Your task to perform on an android device: Open Wikipedia Image 0: 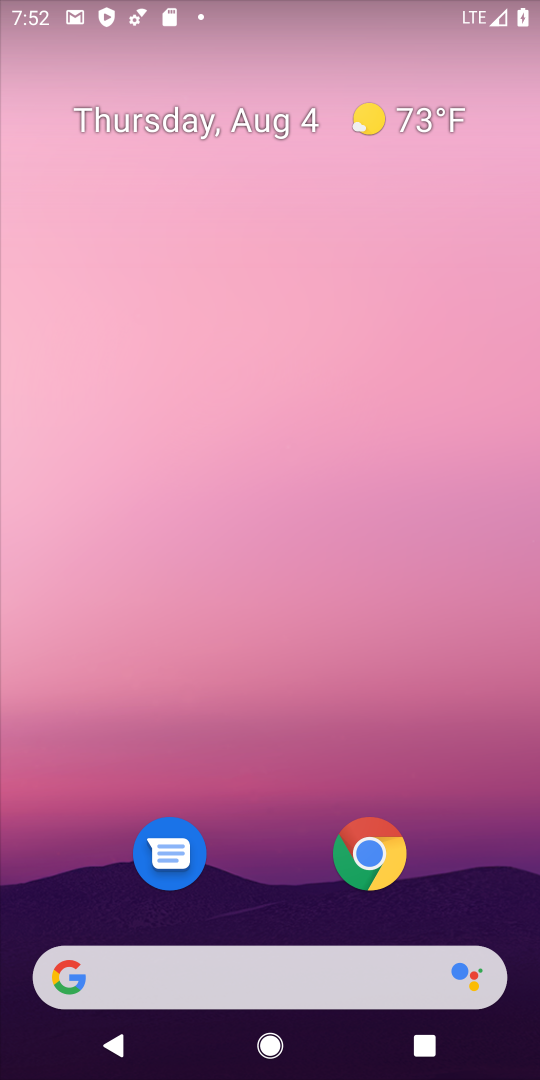
Step 0: click (373, 860)
Your task to perform on an android device: Open Wikipedia Image 1: 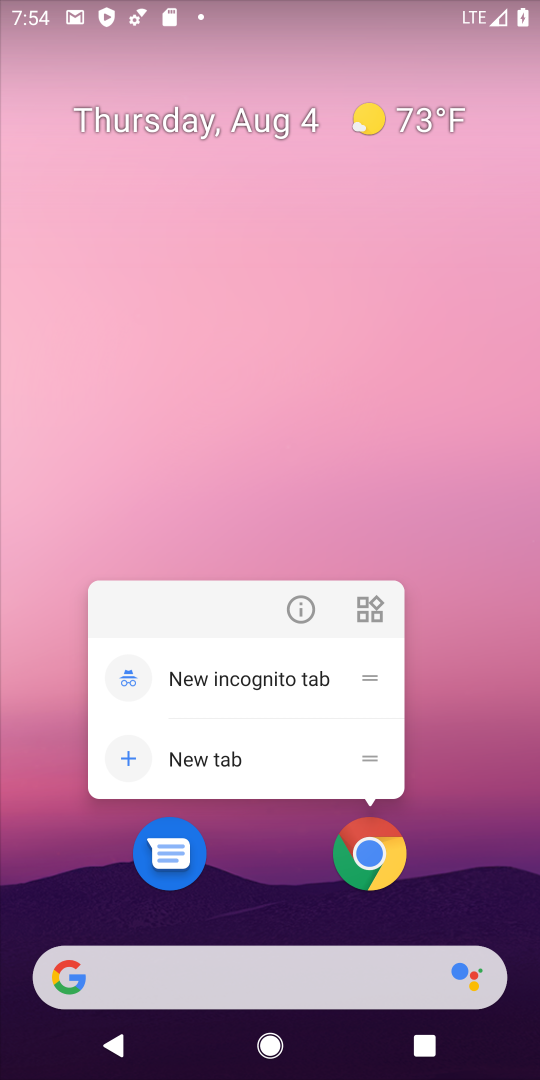
Step 1: click (363, 842)
Your task to perform on an android device: Open Wikipedia Image 2: 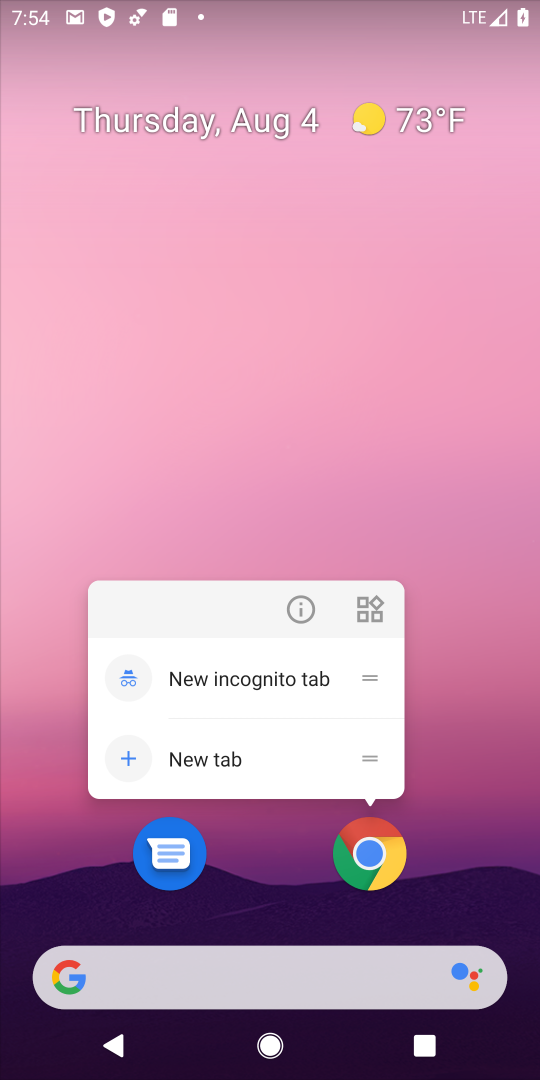
Step 2: click (375, 853)
Your task to perform on an android device: Open Wikipedia Image 3: 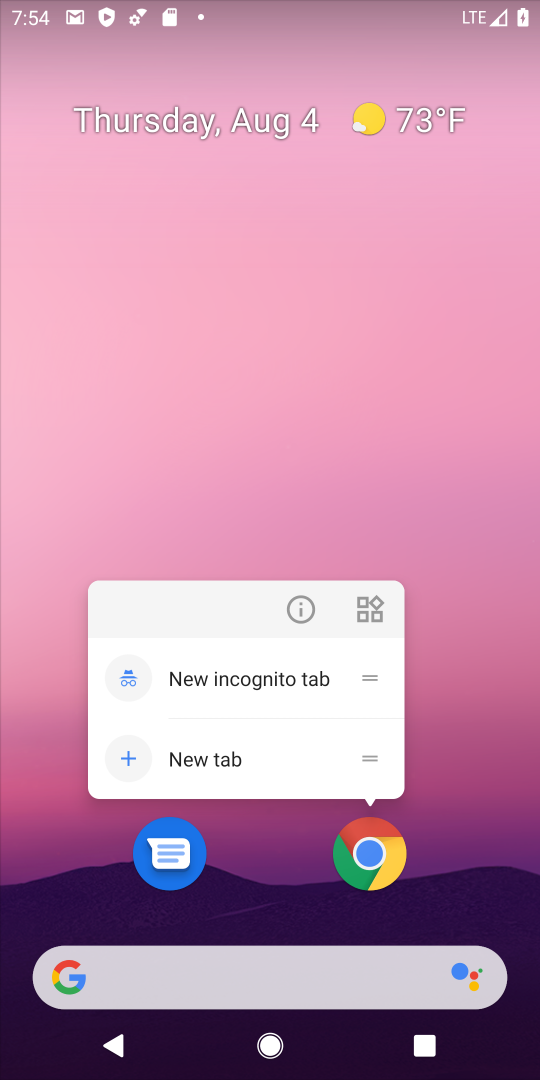
Step 3: click (365, 873)
Your task to perform on an android device: Open Wikipedia Image 4: 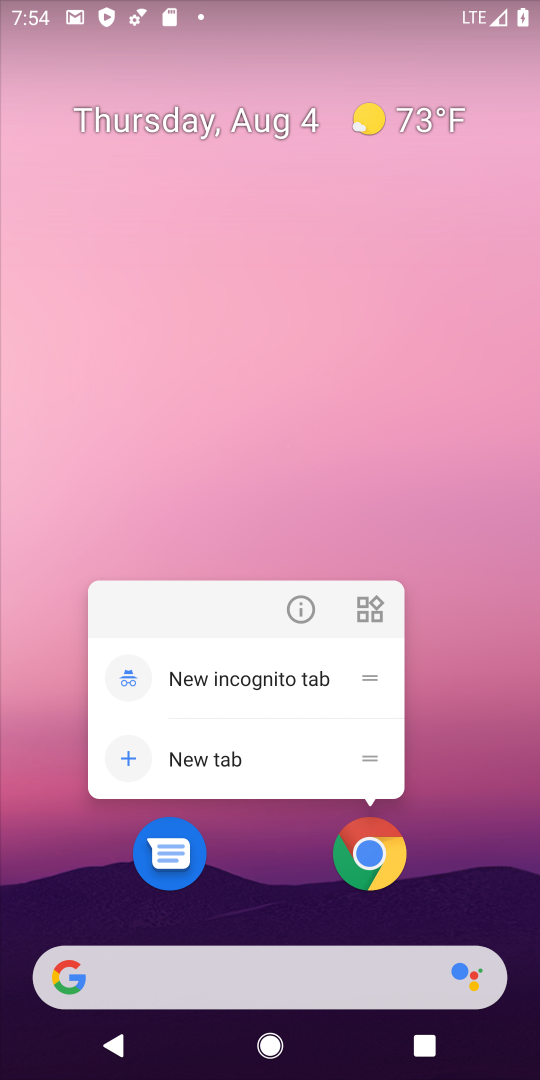
Step 4: click (365, 869)
Your task to perform on an android device: Open Wikipedia Image 5: 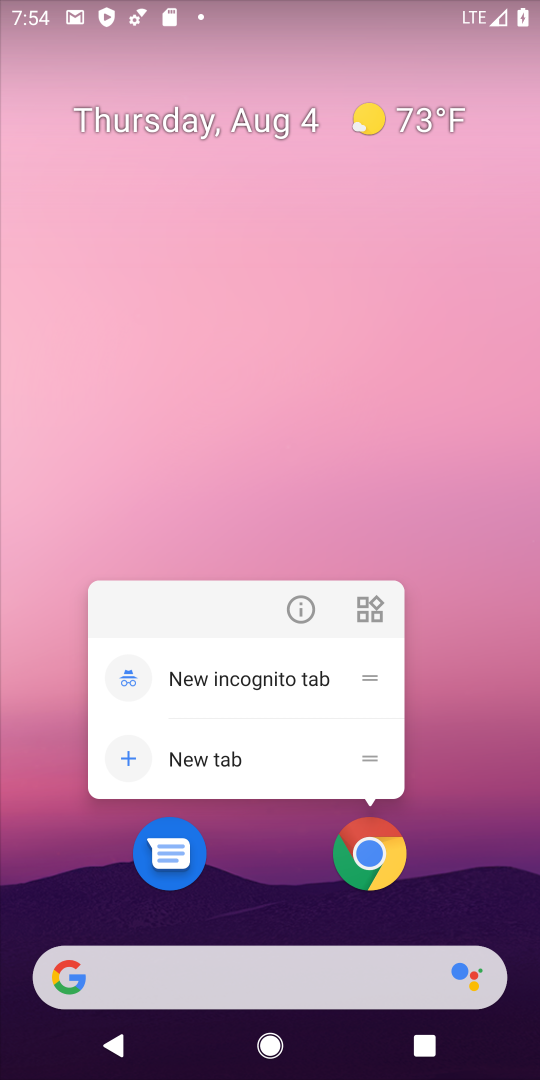
Step 5: click (377, 838)
Your task to perform on an android device: Open Wikipedia Image 6: 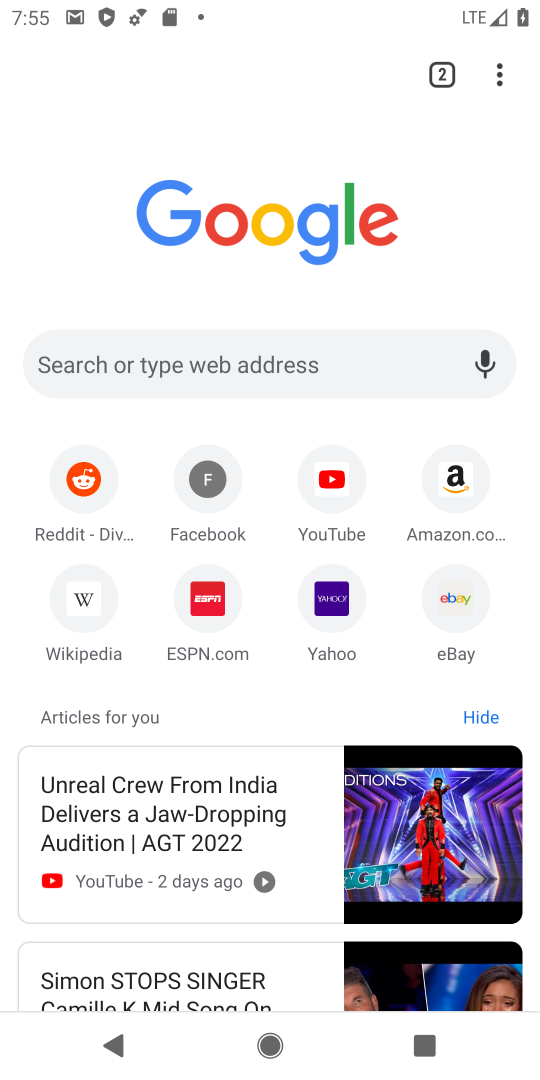
Step 6: click (442, 471)
Your task to perform on an android device: Open Wikipedia Image 7: 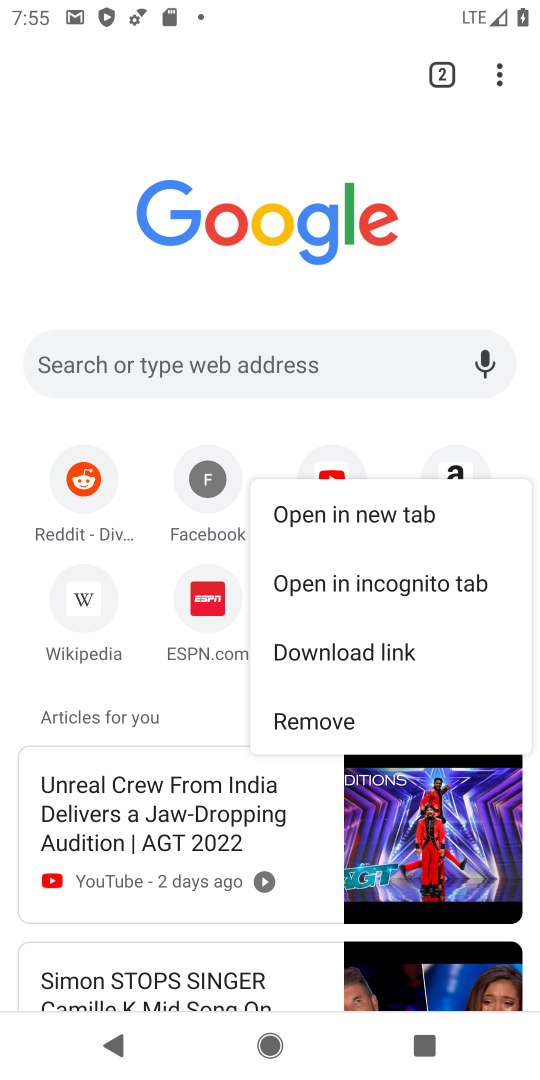
Step 7: click (371, 520)
Your task to perform on an android device: Open Wikipedia Image 8: 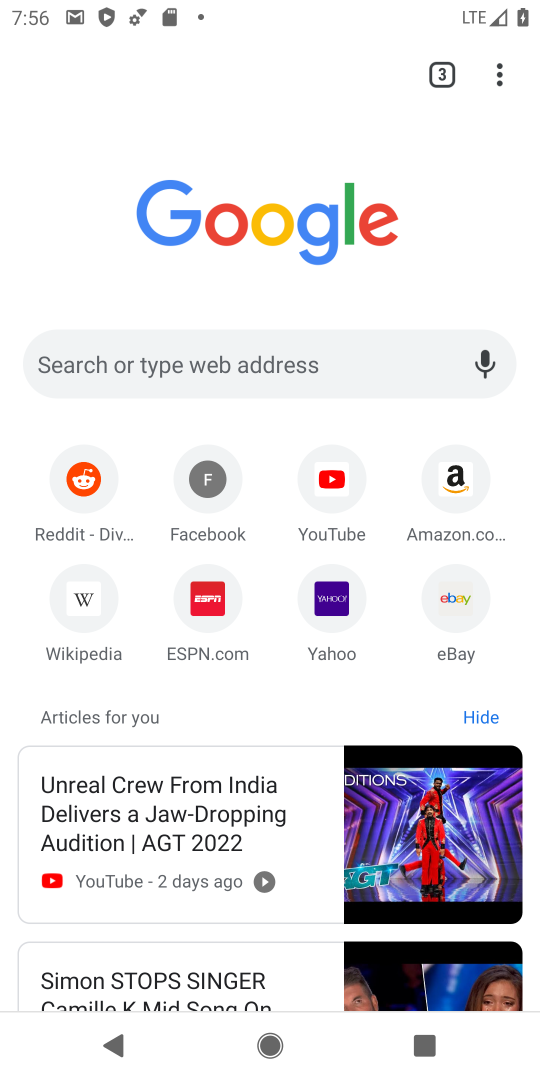
Step 8: click (455, 488)
Your task to perform on an android device: Open Wikipedia Image 9: 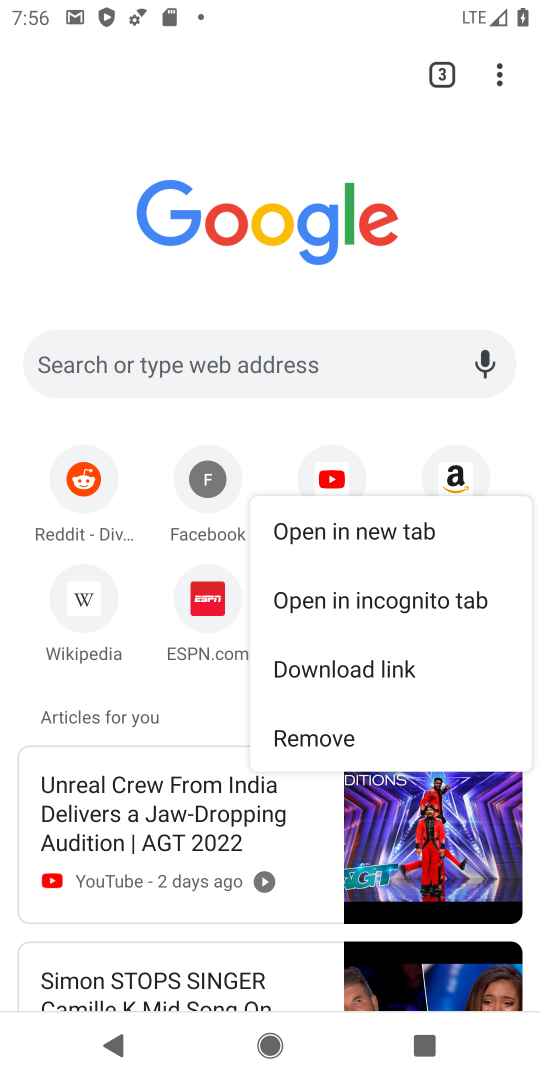
Step 9: click (453, 468)
Your task to perform on an android device: Open Wikipedia Image 10: 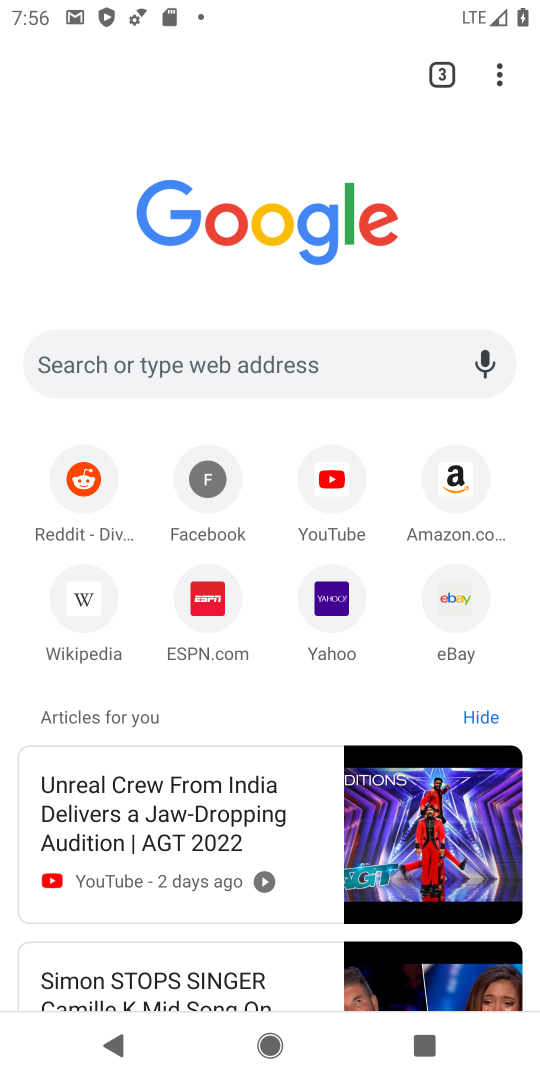
Step 10: click (441, 474)
Your task to perform on an android device: Open Wikipedia Image 11: 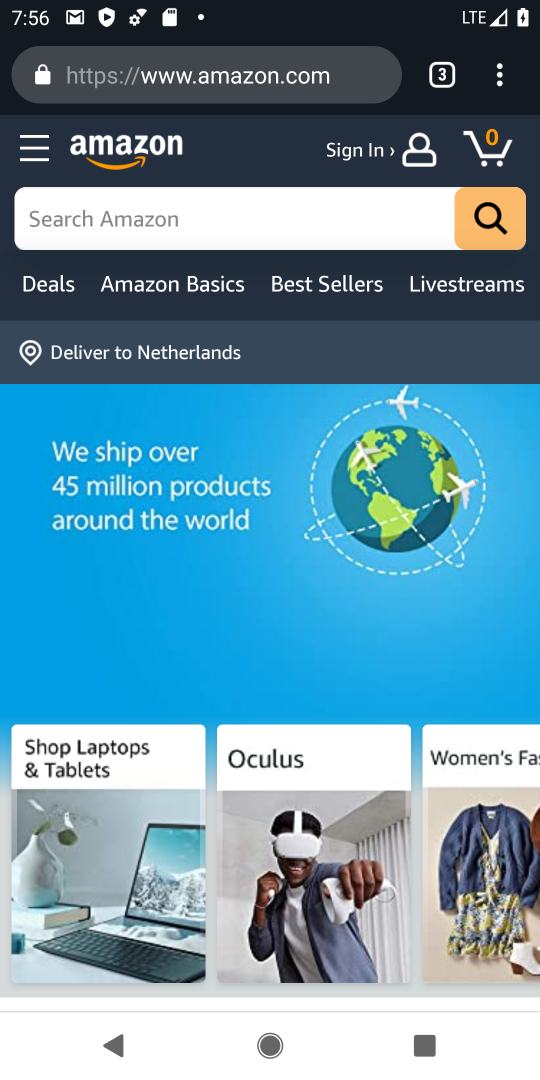
Step 11: task complete